Your task to perform on an android device: toggle pop-ups in chrome Image 0: 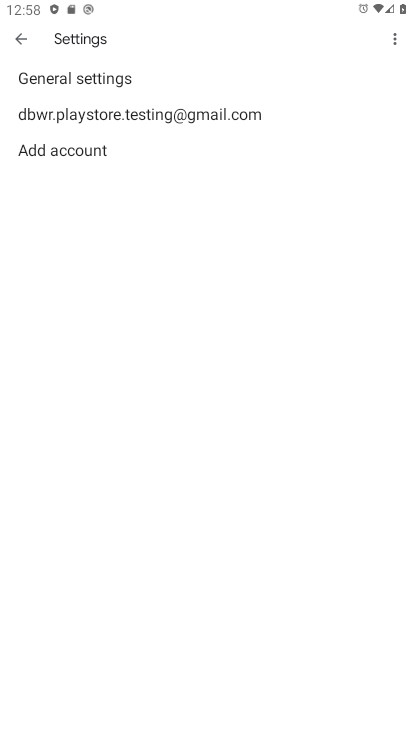
Step 0: press home button
Your task to perform on an android device: toggle pop-ups in chrome Image 1: 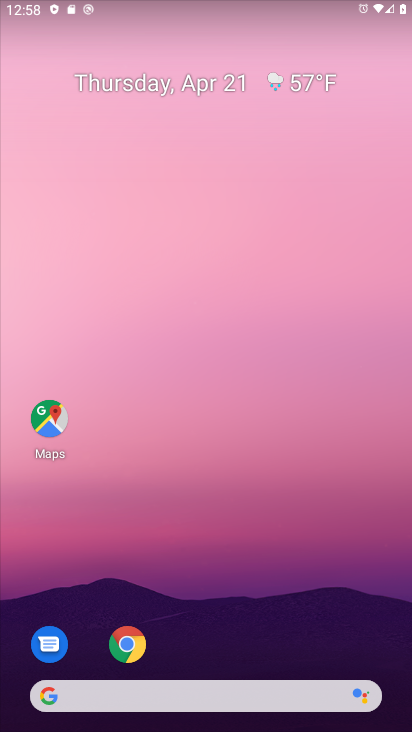
Step 1: drag from (220, 673) to (203, 86)
Your task to perform on an android device: toggle pop-ups in chrome Image 2: 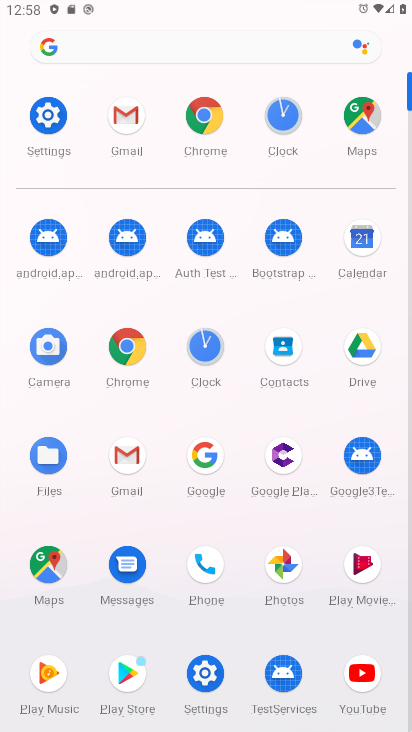
Step 2: click (130, 343)
Your task to perform on an android device: toggle pop-ups in chrome Image 3: 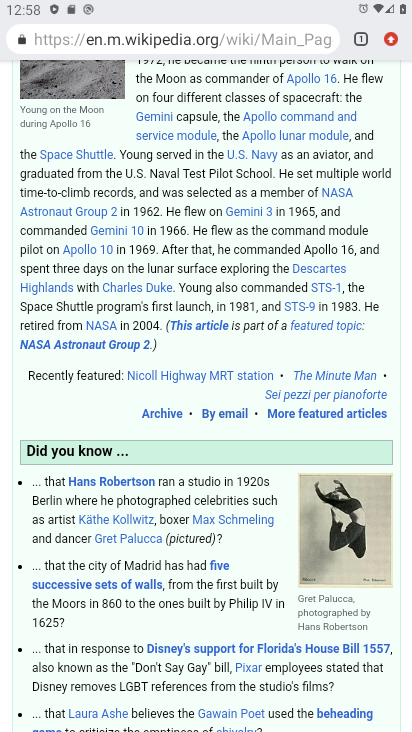
Step 3: drag from (389, 37) to (267, 512)
Your task to perform on an android device: toggle pop-ups in chrome Image 4: 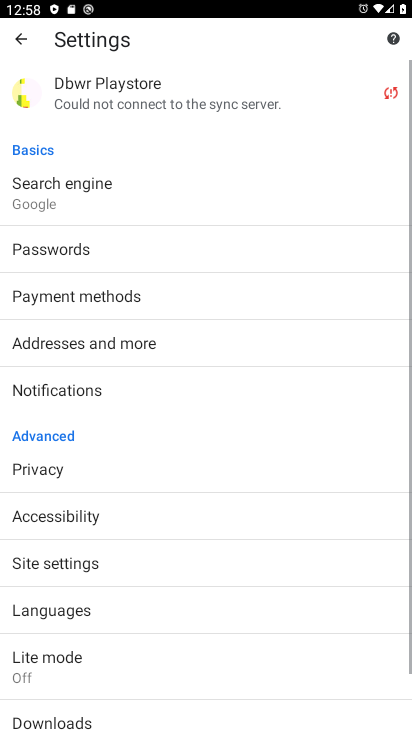
Step 4: drag from (241, 619) to (188, 158)
Your task to perform on an android device: toggle pop-ups in chrome Image 5: 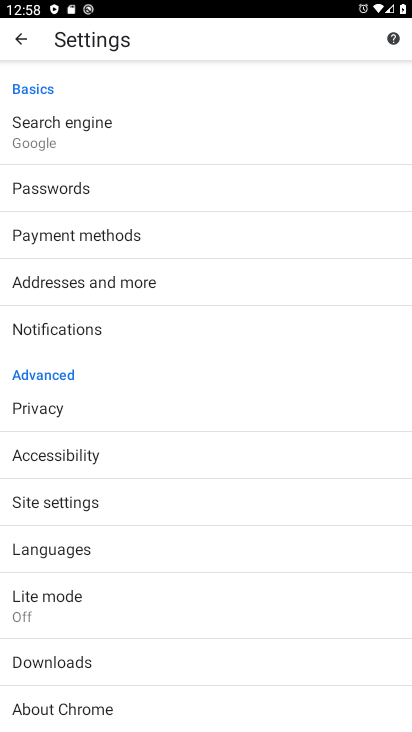
Step 5: click (94, 516)
Your task to perform on an android device: toggle pop-ups in chrome Image 6: 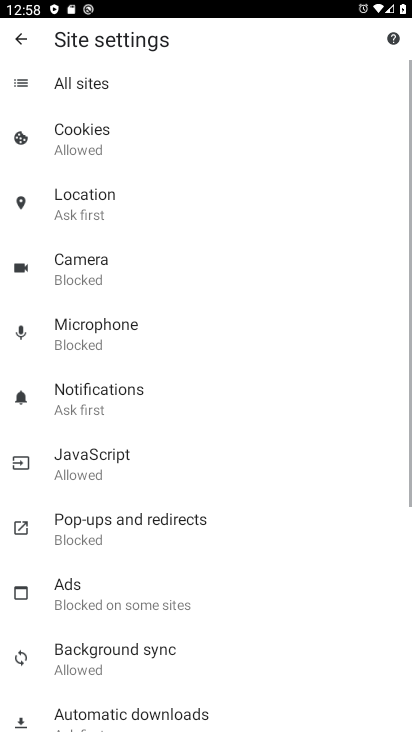
Step 6: drag from (131, 589) to (131, 262)
Your task to perform on an android device: toggle pop-ups in chrome Image 7: 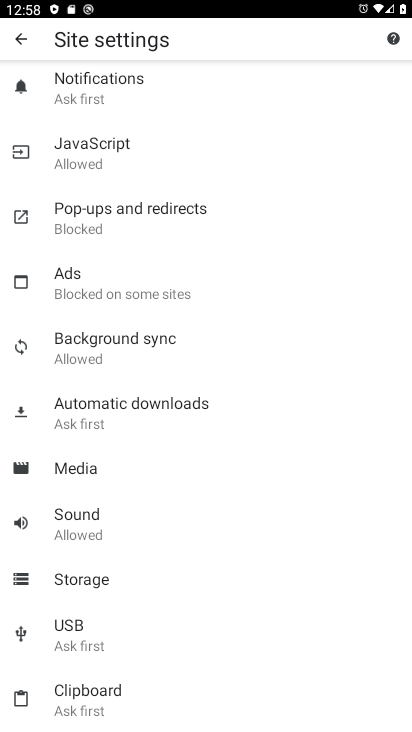
Step 7: click (98, 210)
Your task to perform on an android device: toggle pop-ups in chrome Image 8: 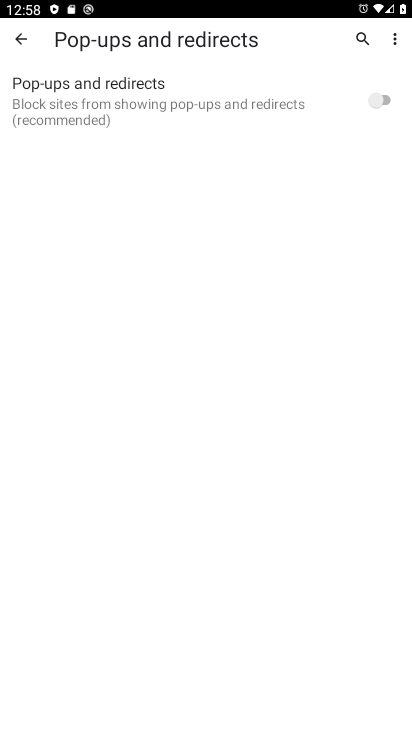
Step 8: click (368, 104)
Your task to perform on an android device: toggle pop-ups in chrome Image 9: 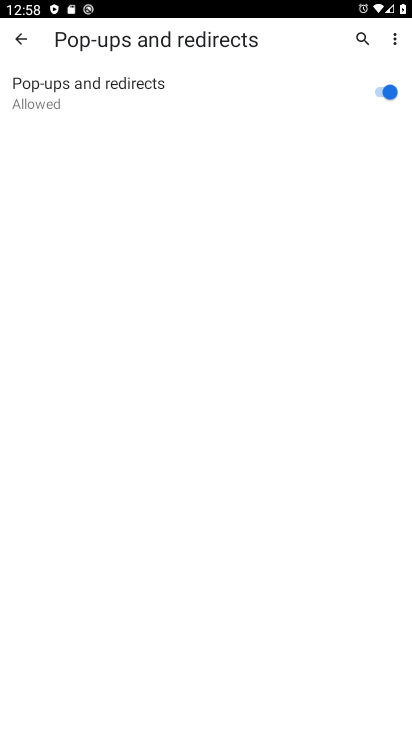
Step 9: task complete